Your task to perform on an android device: Open Google Chrome Image 0: 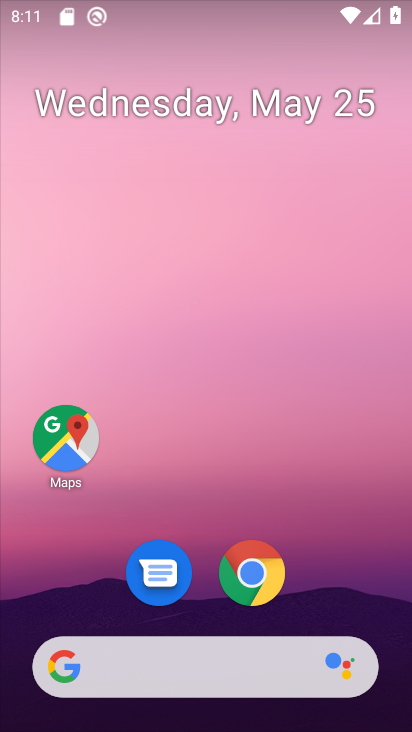
Step 0: click (254, 570)
Your task to perform on an android device: Open Google Chrome Image 1: 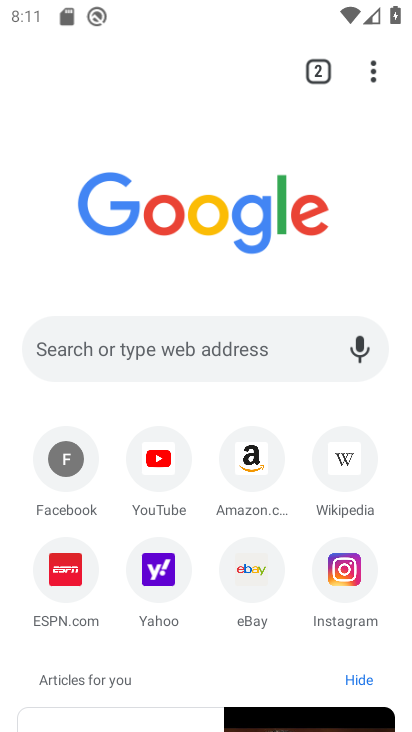
Step 1: click (372, 65)
Your task to perform on an android device: Open Google Chrome Image 2: 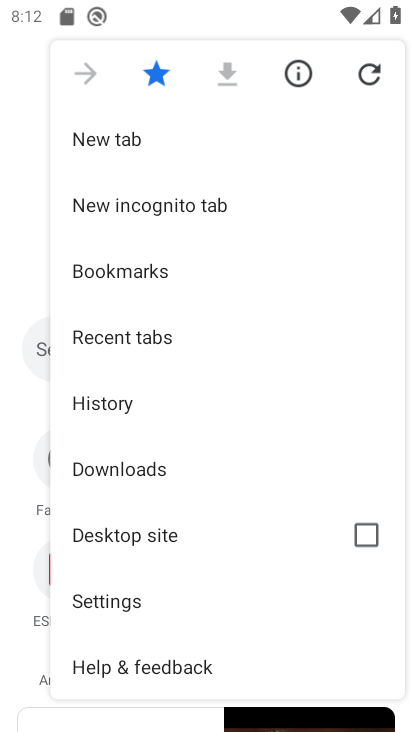
Step 2: click (33, 155)
Your task to perform on an android device: Open Google Chrome Image 3: 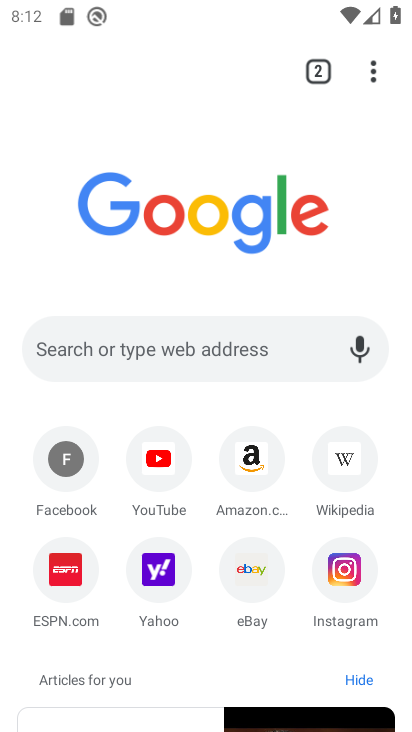
Step 3: task complete